Your task to perform on an android device: find photos in the google photos app Image 0: 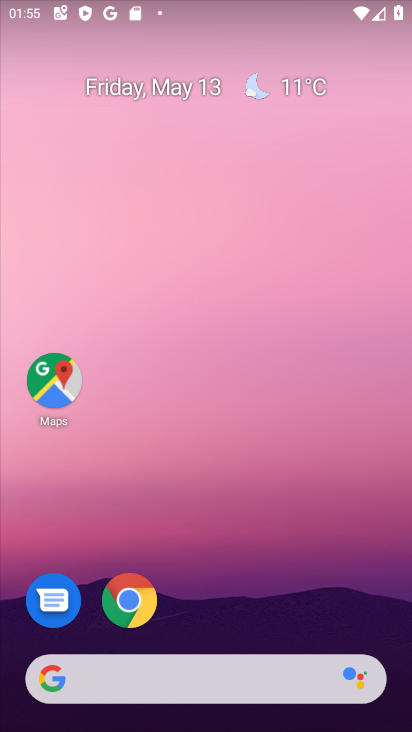
Step 0: drag from (255, 590) to (349, 78)
Your task to perform on an android device: find photos in the google photos app Image 1: 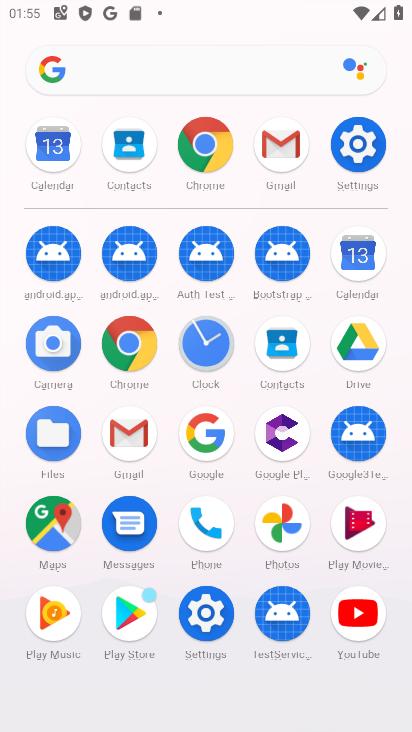
Step 1: click (276, 526)
Your task to perform on an android device: find photos in the google photos app Image 2: 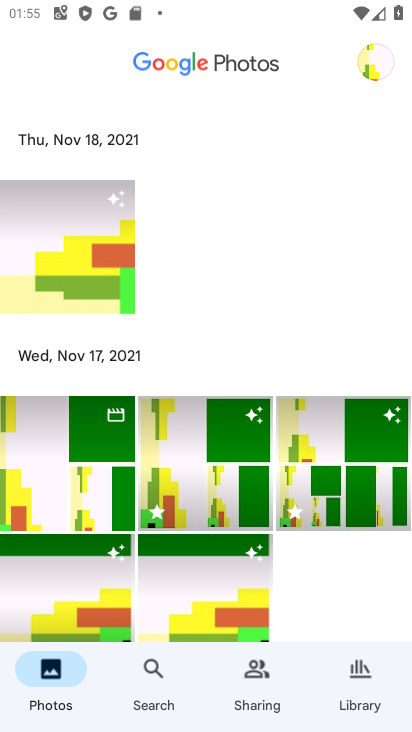
Step 2: click (96, 478)
Your task to perform on an android device: find photos in the google photos app Image 3: 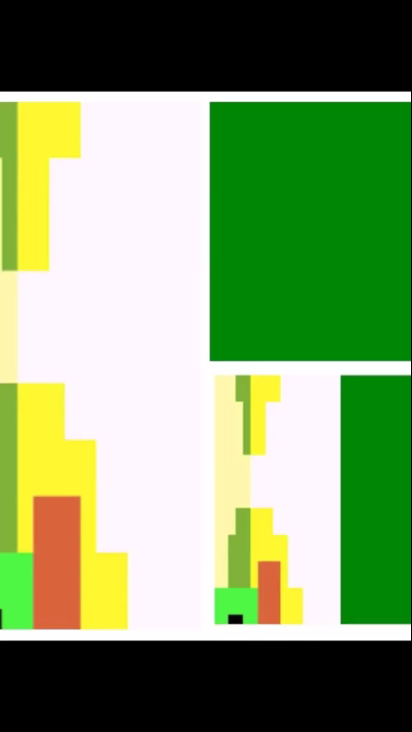
Step 3: task complete